Your task to perform on an android device: Open Youtube and go to "Your channel" Image 0: 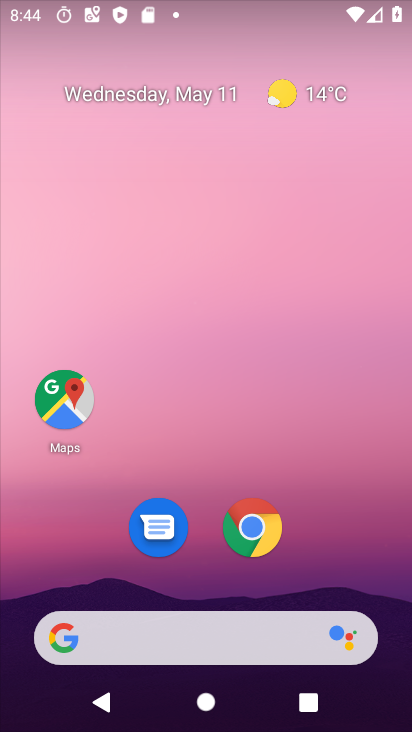
Step 0: drag from (360, 571) to (326, 150)
Your task to perform on an android device: Open Youtube and go to "Your channel" Image 1: 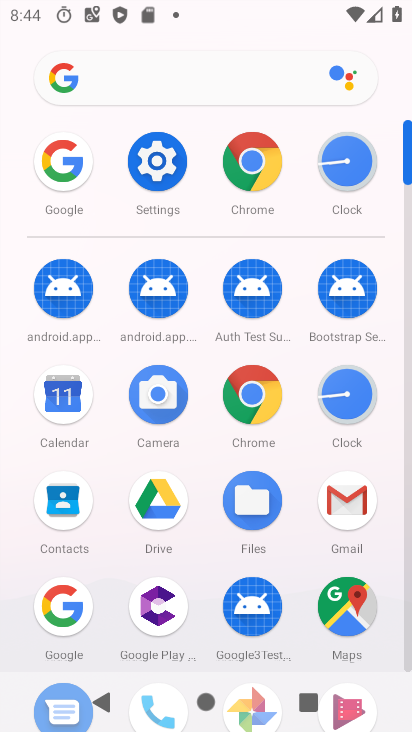
Step 1: drag from (242, 602) to (223, 331)
Your task to perform on an android device: Open Youtube and go to "Your channel" Image 2: 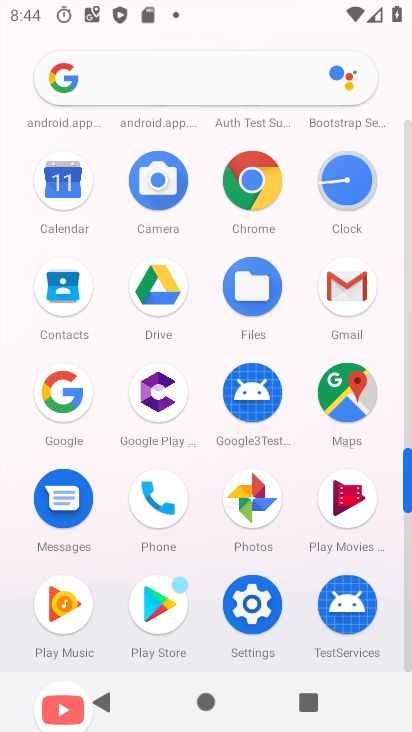
Step 2: drag from (140, 559) to (106, 417)
Your task to perform on an android device: Open Youtube and go to "Your channel" Image 3: 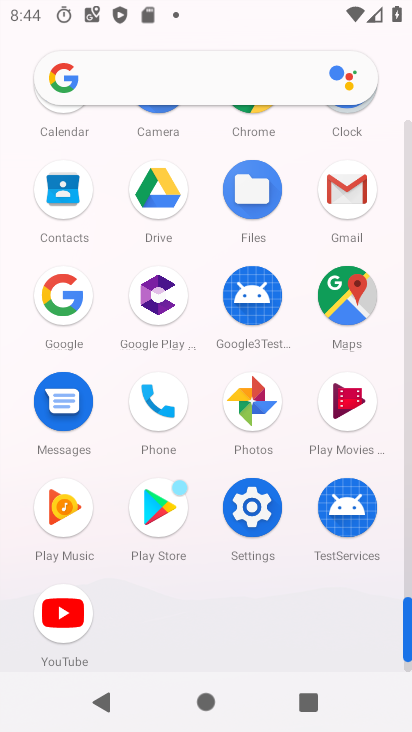
Step 3: click (68, 621)
Your task to perform on an android device: Open Youtube and go to "Your channel" Image 4: 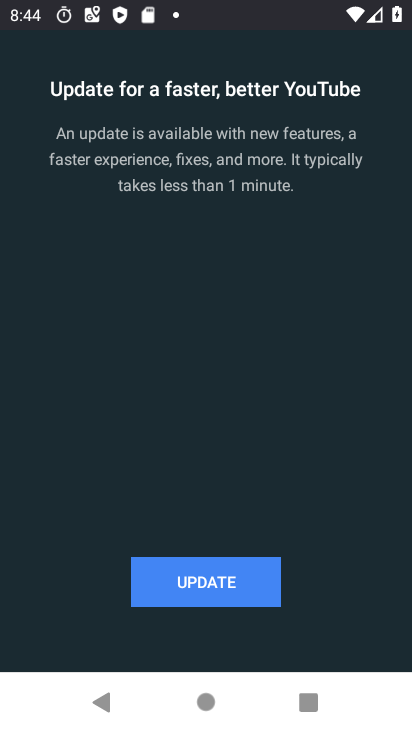
Step 4: task complete